Your task to perform on an android device: Open maps Image 0: 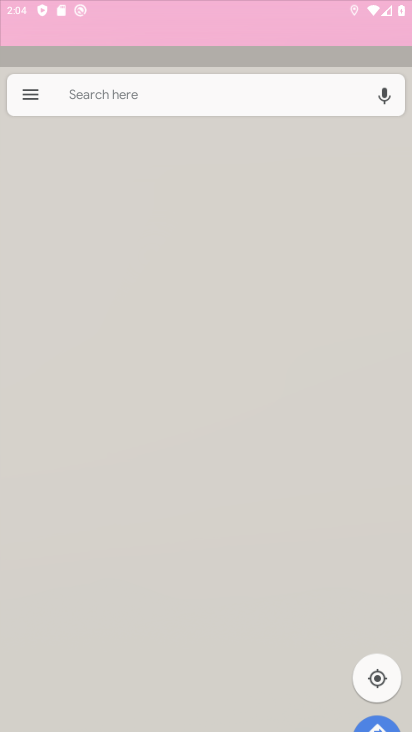
Step 0: drag from (362, 622) to (155, 0)
Your task to perform on an android device: Open maps Image 1: 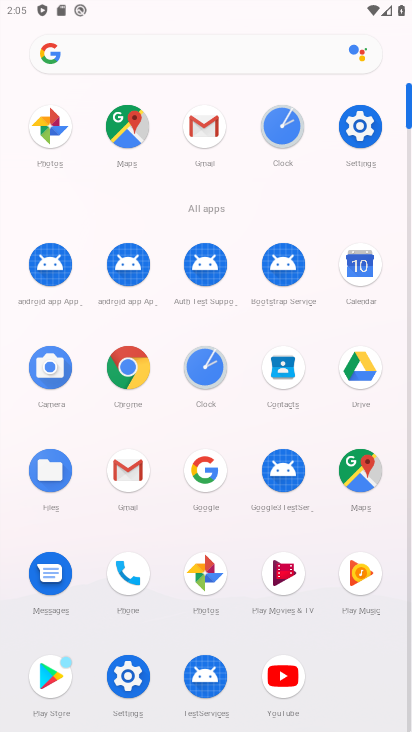
Step 1: click (367, 472)
Your task to perform on an android device: Open maps Image 2: 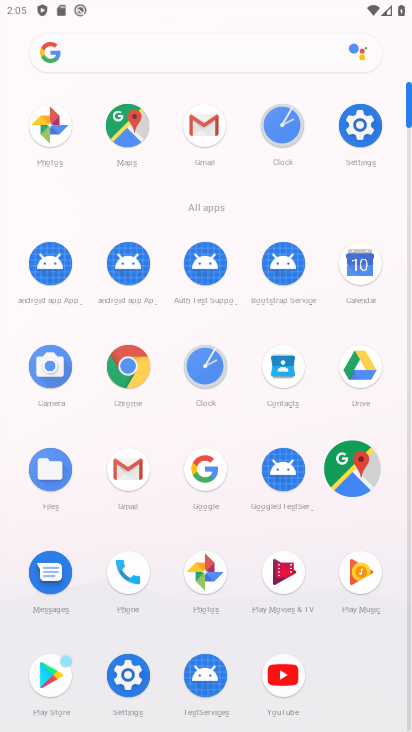
Step 2: click (364, 481)
Your task to perform on an android device: Open maps Image 3: 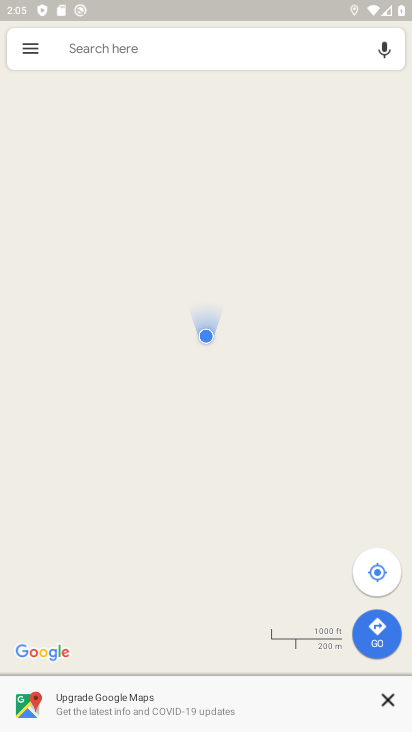
Step 3: click (48, 32)
Your task to perform on an android device: Open maps Image 4: 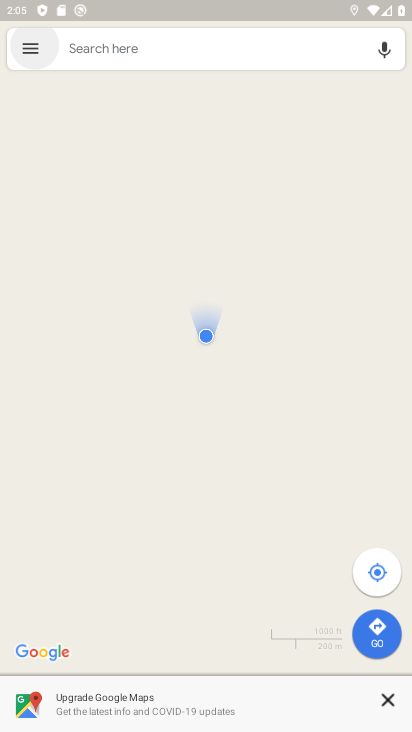
Step 4: click (66, 51)
Your task to perform on an android device: Open maps Image 5: 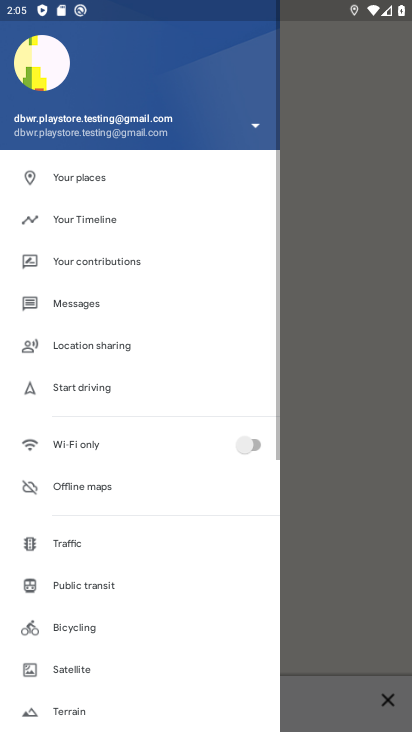
Step 5: click (361, 331)
Your task to perform on an android device: Open maps Image 6: 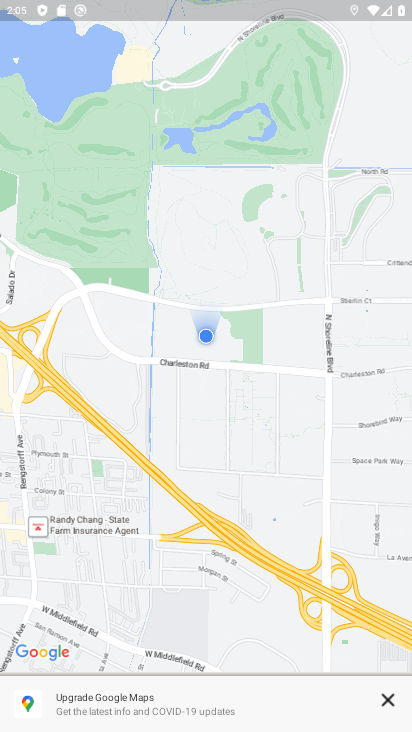
Step 6: task complete